Your task to perform on an android device: change the clock display to show seconds Image 0: 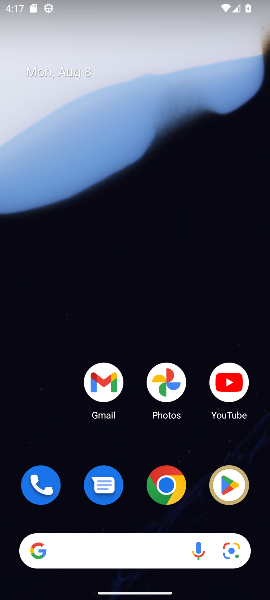
Step 0: drag from (139, 514) to (73, 103)
Your task to perform on an android device: change the clock display to show seconds Image 1: 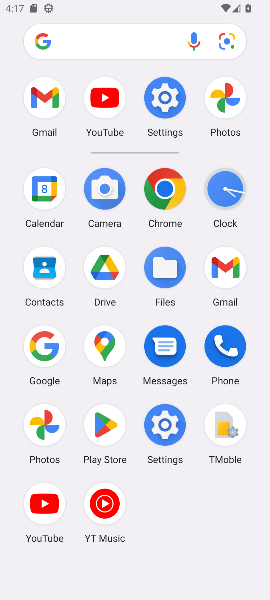
Step 1: click (119, 201)
Your task to perform on an android device: change the clock display to show seconds Image 2: 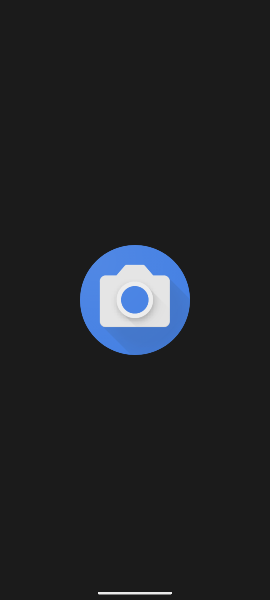
Step 2: press back button
Your task to perform on an android device: change the clock display to show seconds Image 3: 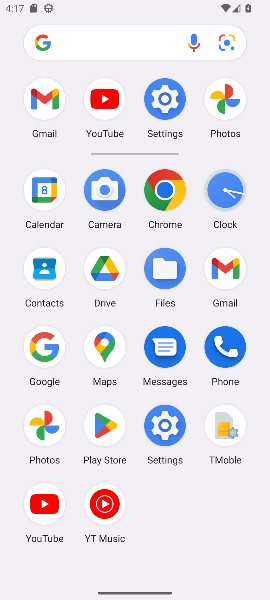
Step 3: click (223, 185)
Your task to perform on an android device: change the clock display to show seconds Image 4: 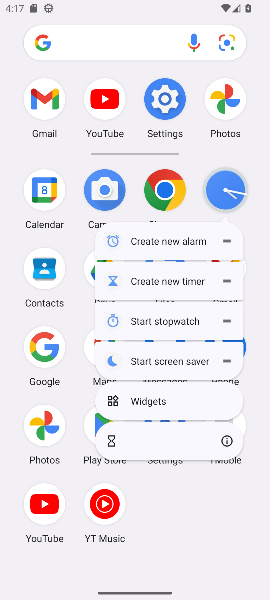
Step 4: click (223, 185)
Your task to perform on an android device: change the clock display to show seconds Image 5: 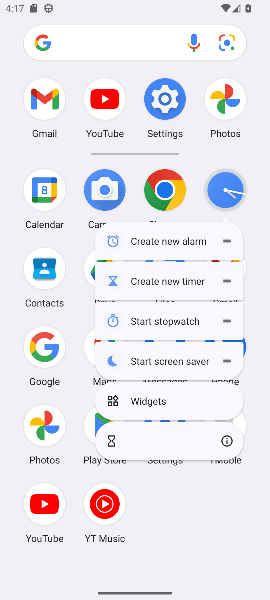
Step 5: click (225, 185)
Your task to perform on an android device: change the clock display to show seconds Image 6: 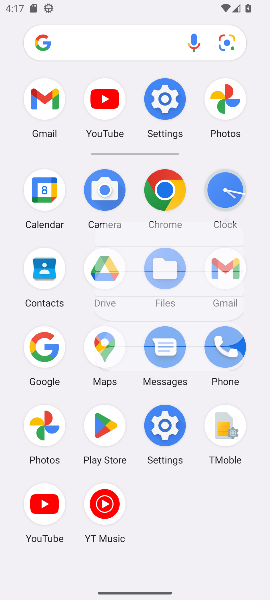
Step 6: click (225, 185)
Your task to perform on an android device: change the clock display to show seconds Image 7: 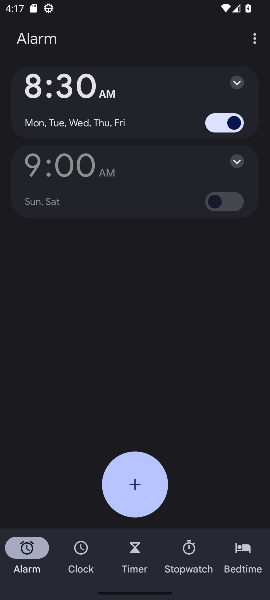
Step 7: click (226, 185)
Your task to perform on an android device: change the clock display to show seconds Image 8: 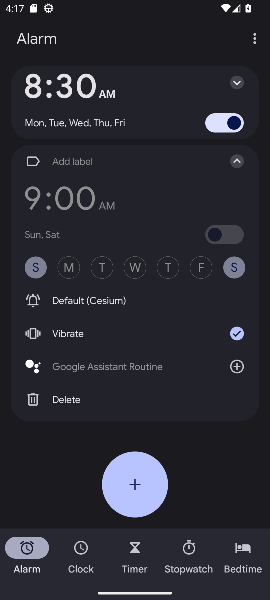
Step 8: drag from (254, 32) to (166, 111)
Your task to perform on an android device: change the clock display to show seconds Image 9: 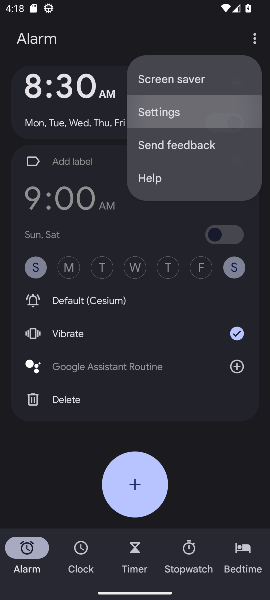
Step 9: click (165, 113)
Your task to perform on an android device: change the clock display to show seconds Image 10: 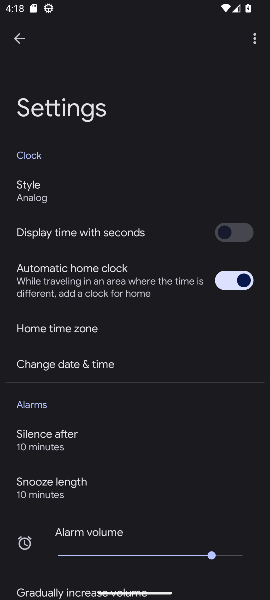
Step 10: click (225, 230)
Your task to perform on an android device: change the clock display to show seconds Image 11: 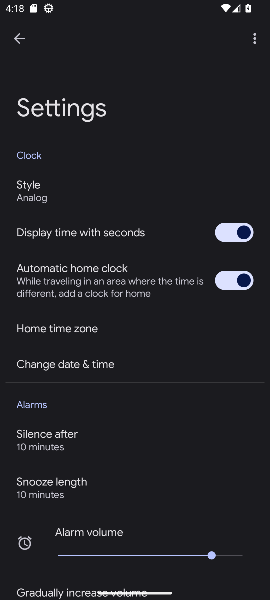
Step 11: task complete